Your task to perform on an android device: toggle data saver in the chrome app Image 0: 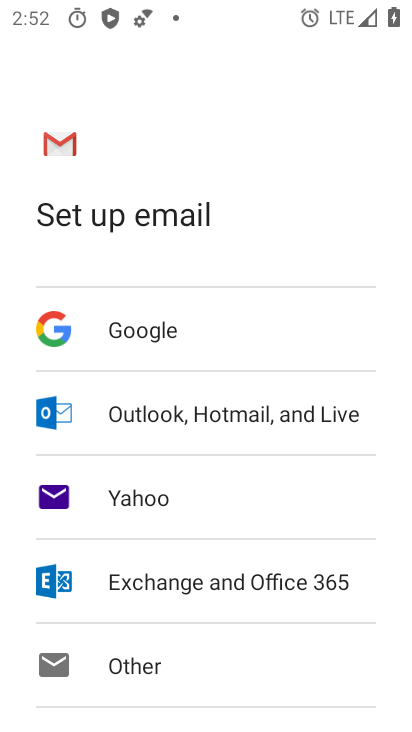
Step 0: press home button
Your task to perform on an android device: toggle data saver in the chrome app Image 1: 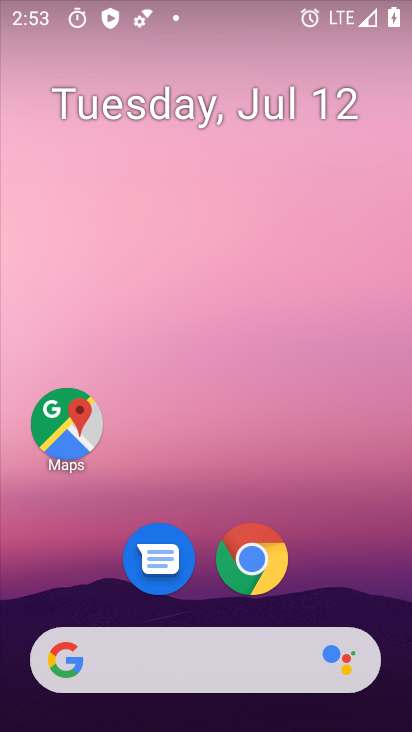
Step 1: drag from (375, 613) to (381, 248)
Your task to perform on an android device: toggle data saver in the chrome app Image 2: 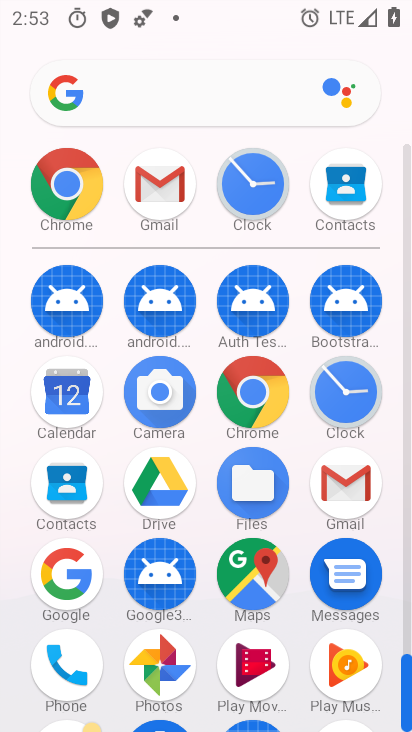
Step 2: click (265, 390)
Your task to perform on an android device: toggle data saver in the chrome app Image 3: 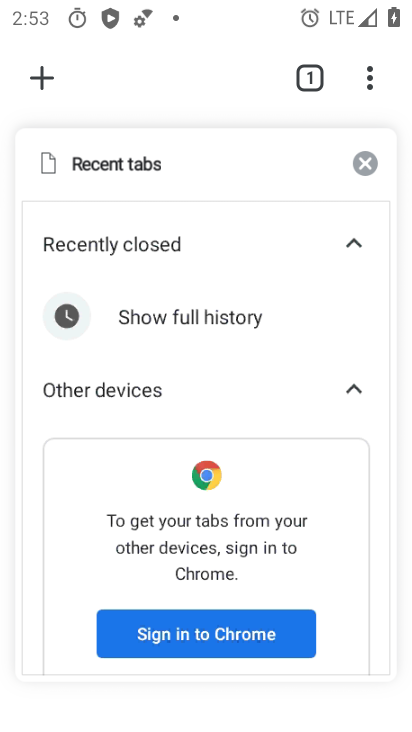
Step 3: click (367, 82)
Your task to perform on an android device: toggle data saver in the chrome app Image 4: 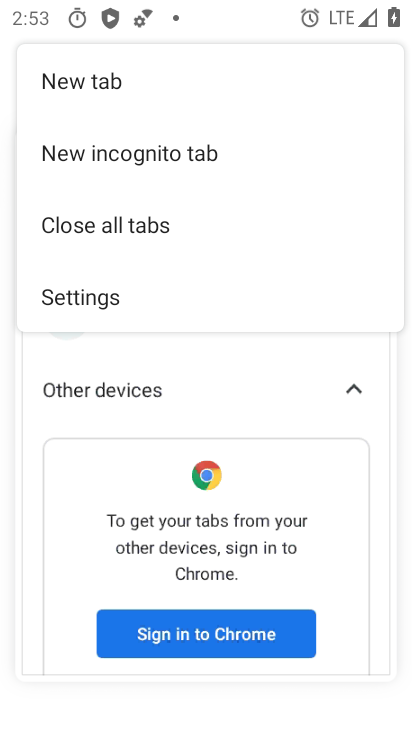
Step 4: click (169, 317)
Your task to perform on an android device: toggle data saver in the chrome app Image 5: 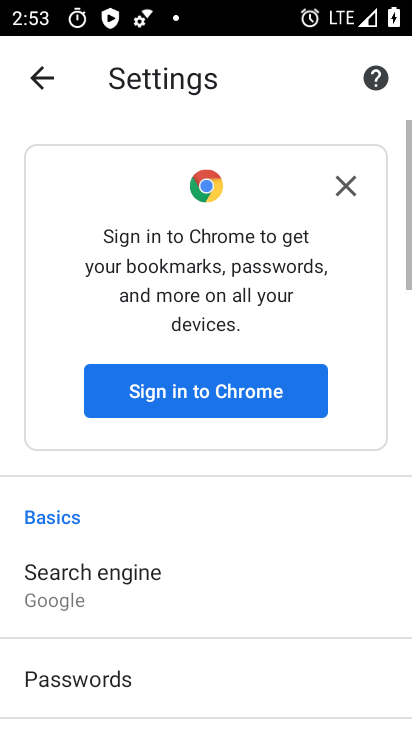
Step 5: drag from (309, 487) to (314, 415)
Your task to perform on an android device: toggle data saver in the chrome app Image 6: 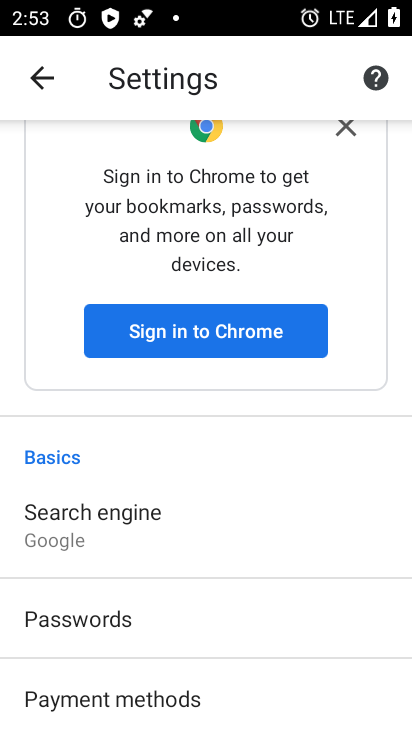
Step 6: drag from (333, 512) to (339, 407)
Your task to perform on an android device: toggle data saver in the chrome app Image 7: 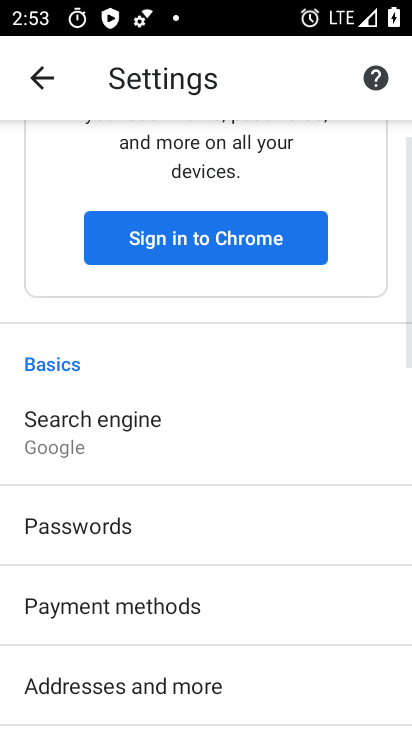
Step 7: drag from (341, 518) to (342, 412)
Your task to perform on an android device: toggle data saver in the chrome app Image 8: 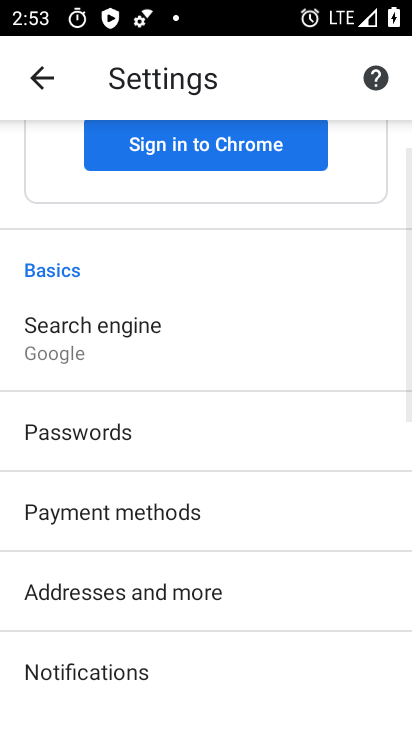
Step 8: drag from (335, 506) to (330, 409)
Your task to perform on an android device: toggle data saver in the chrome app Image 9: 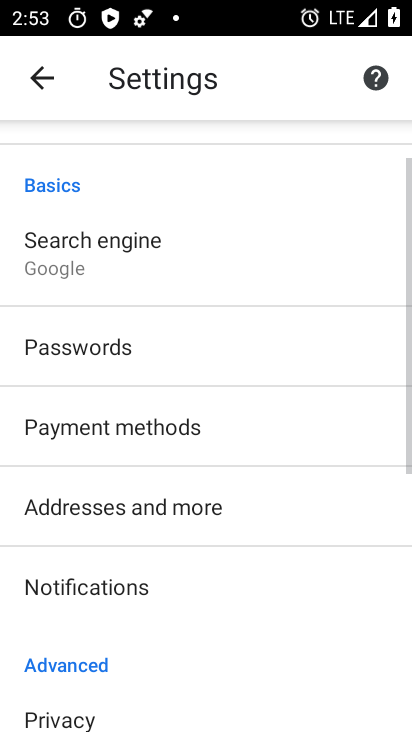
Step 9: drag from (328, 508) to (328, 442)
Your task to perform on an android device: toggle data saver in the chrome app Image 10: 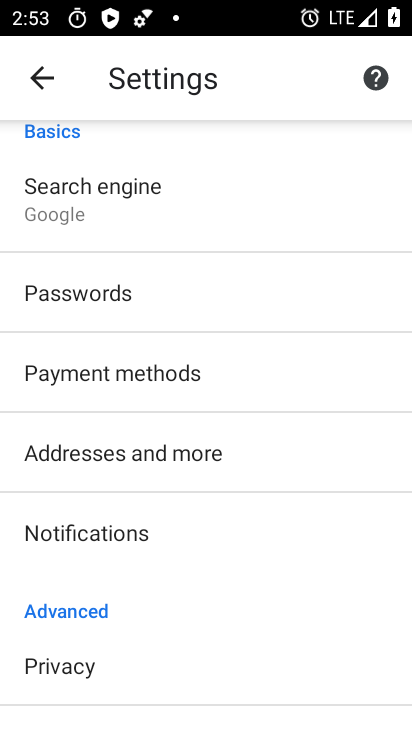
Step 10: drag from (341, 525) to (337, 458)
Your task to perform on an android device: toggle data saver in the chrome app Image 11: 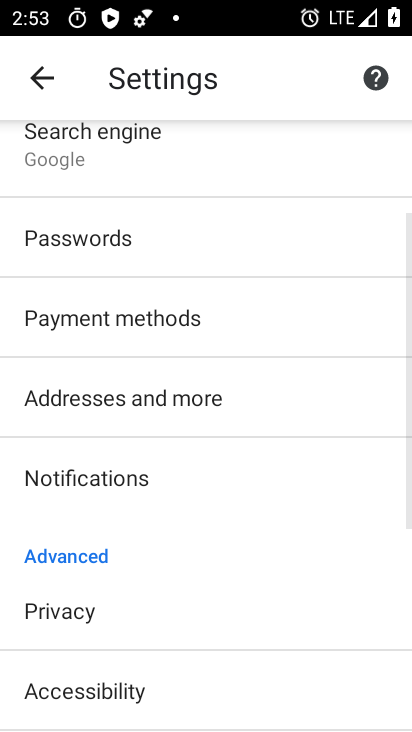
Step 11: drag from (336, 522) to (336, 449)
Your task to perform on an android device: toggle data saver in the chrome app Image 12: 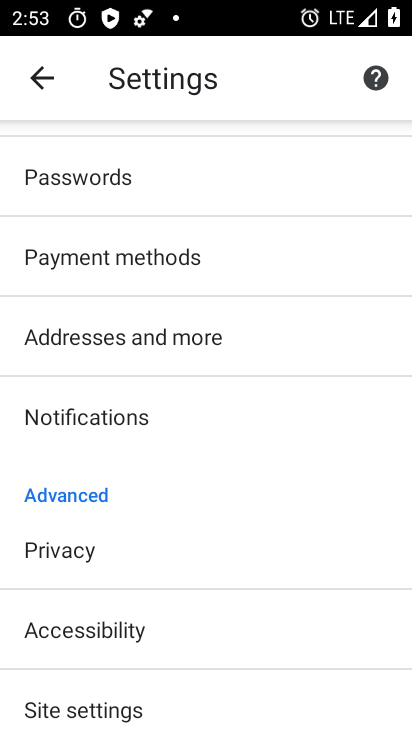
Step 12: drag from (335, 527) to (333, 452)
Your task to perform on an android device: toggle data saver in the chrome app Image 13: 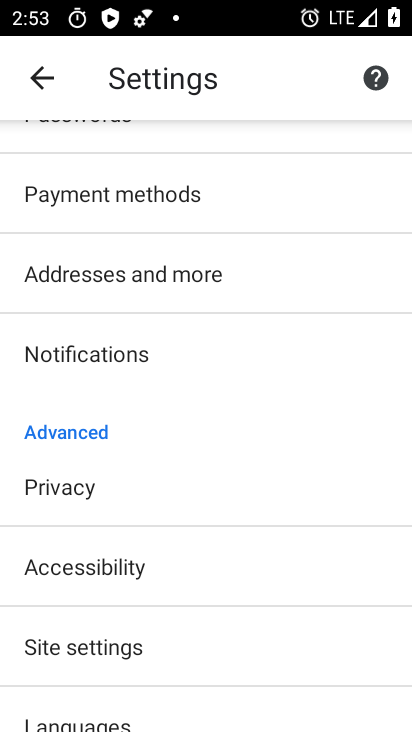
Step 13: drag from (331, 529) to (329, 452)
Your task to perform on an android device: toggle data saver in the chrome app Image 14: 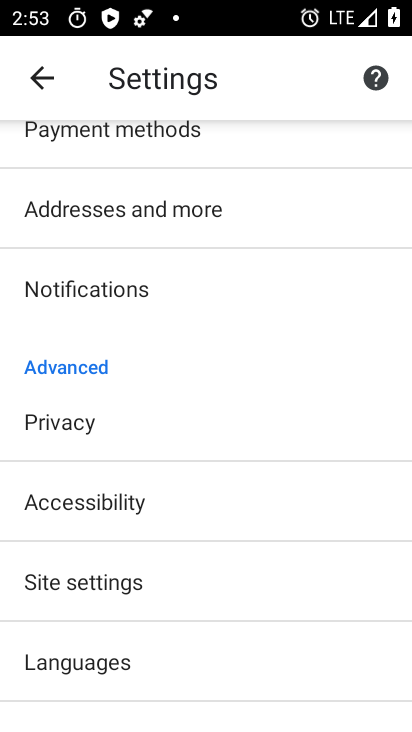
Step 14: drag from (333, 529) to (336, 434)
Your task to perform on an android device: toggle data saver in the chrome app Image 15: 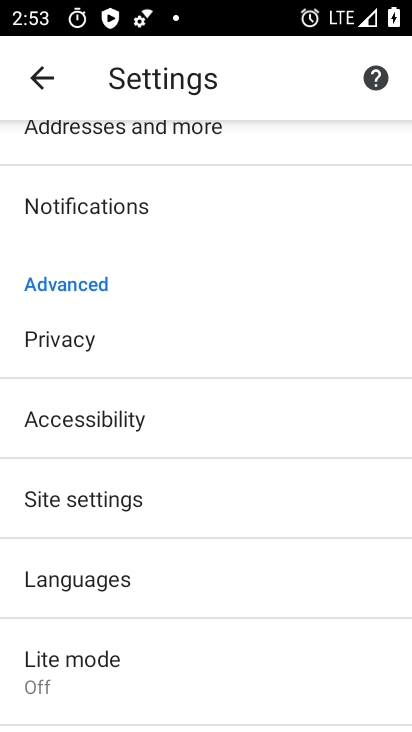
Step 15: drag from (327, 543) to (322, 437)
Your task to perform on an android device: toggle data saver in the chrome app Image 16: 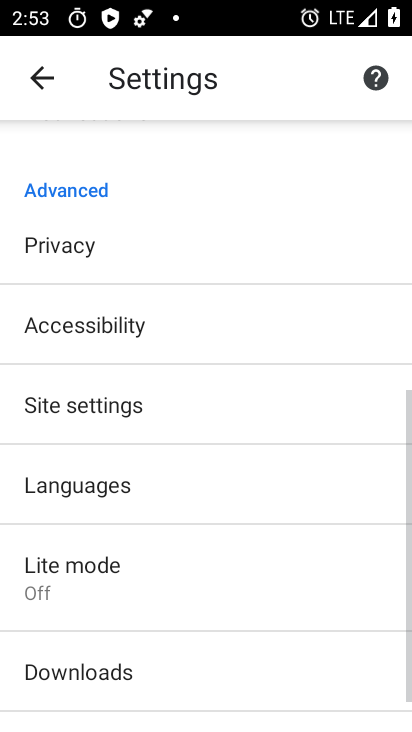
Step 16: click (308, 577)
Your task to perform on an android device: toggle data saver in the chrome app Image 17: 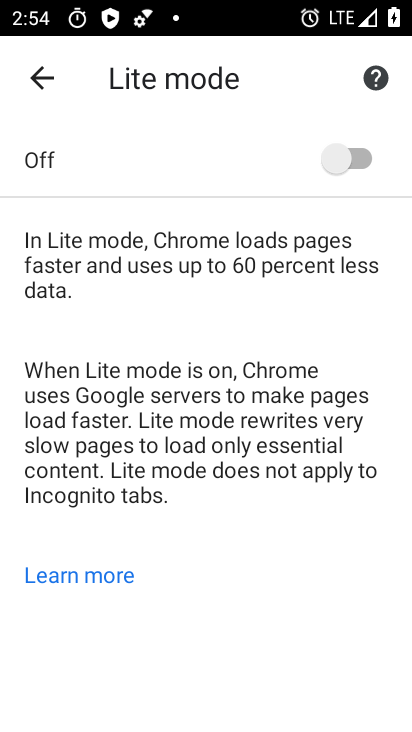
Step 17: click (345, 147)
Your task to perform on an android device: toggle data saver in the chrome app Image 18: 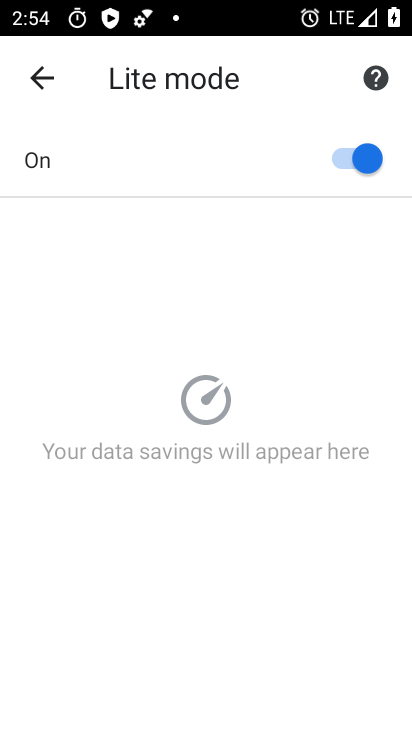
Step 18: task complete